Your task to perform on an android device: check data usage Image 0: 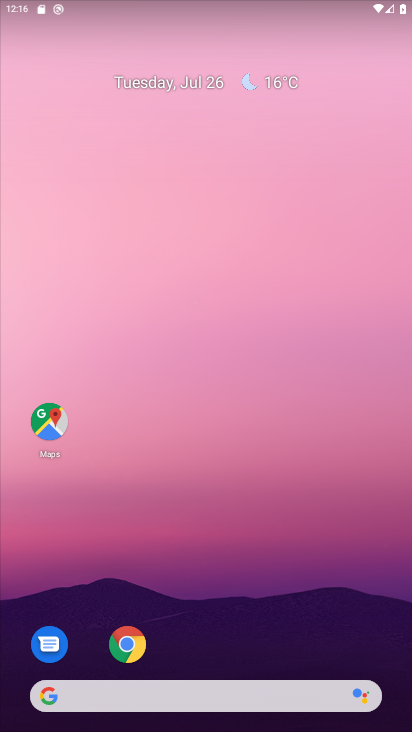
Step 0: drag from (247, 535) to (284, 129)
Your task to perform on an android device: check data usage Image 1: 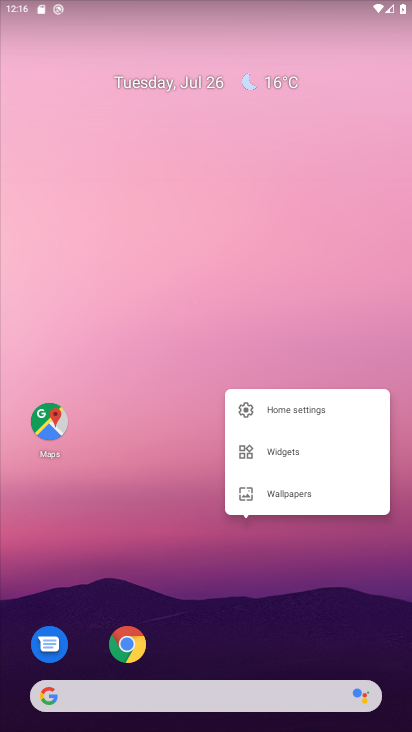
Step 1: click (120, 295)
Your task to perform on an android device: check data usage Image 2: 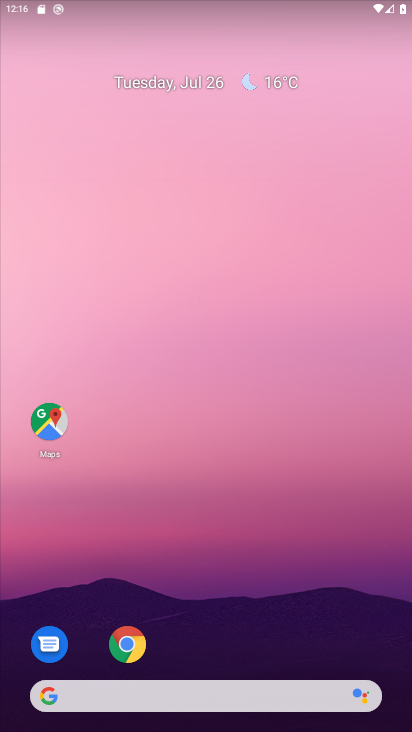
Step 2: drag from (236, 569) to (265, 49)
Your task to perform on an android device: check data usage Image 3: 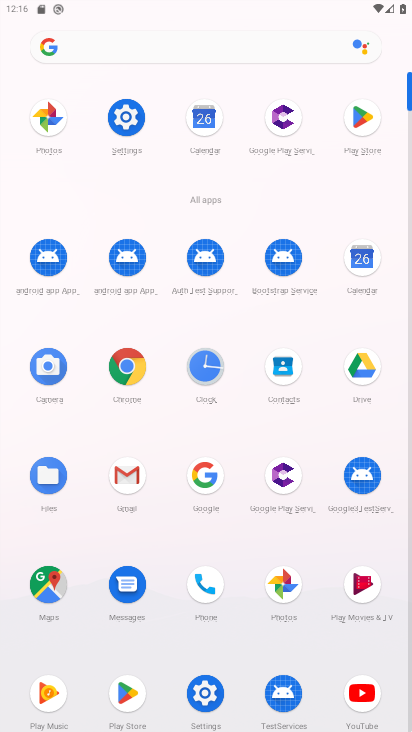
Step 3: click (130, 118)
Your task to perform on an android device: check data usage Image 4: 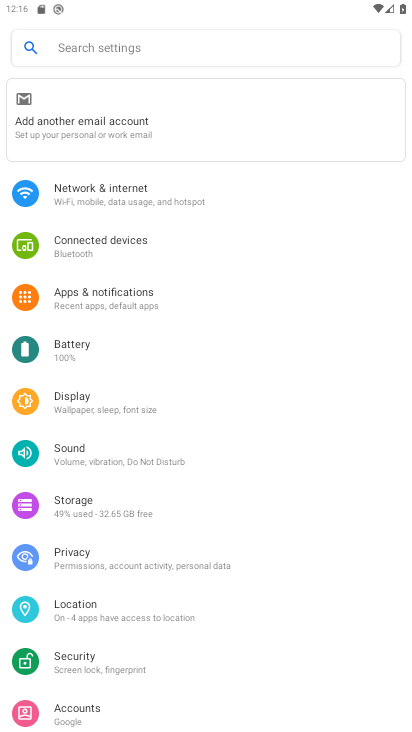
Step 4: click (102, 188)
Your task to perform on an android device: check data usage Image 5: 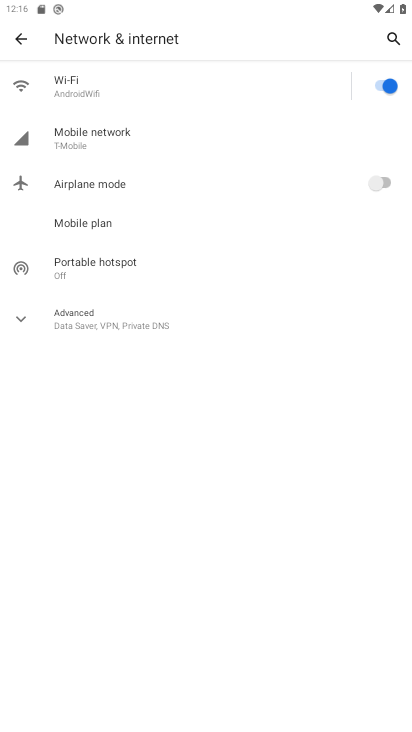
Step 5: click (88, 139)
Your task to perform on an android device: check data usage Image 6: 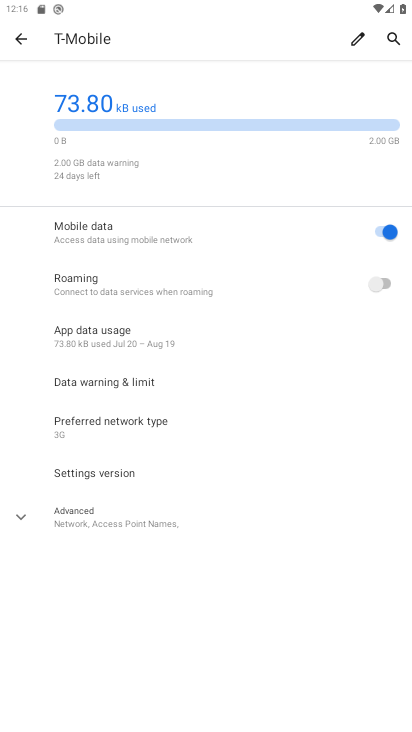
Step 6: click (101, 328)
Your task to perform on an android device: check data usage Image 7: 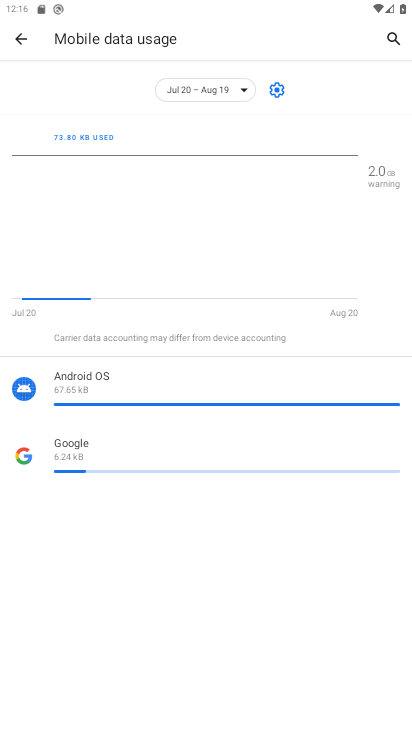
Step 7: task complete